Your task to perform on an android device: change the clock display to show seconds Image 0: 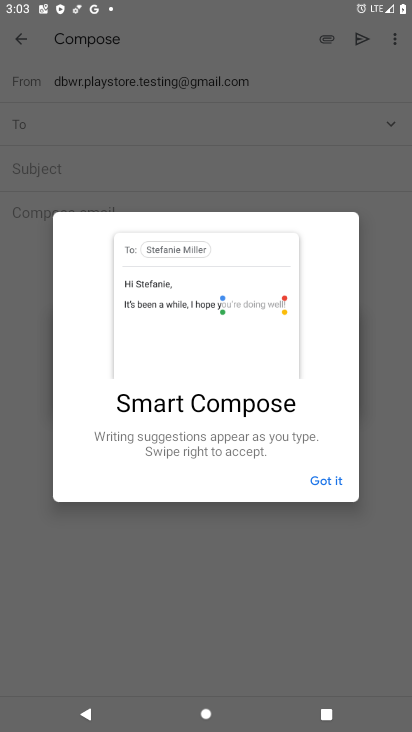
Step 0: press home button
Your task to perform on an android device: change the clock display to show seconds Image 1: 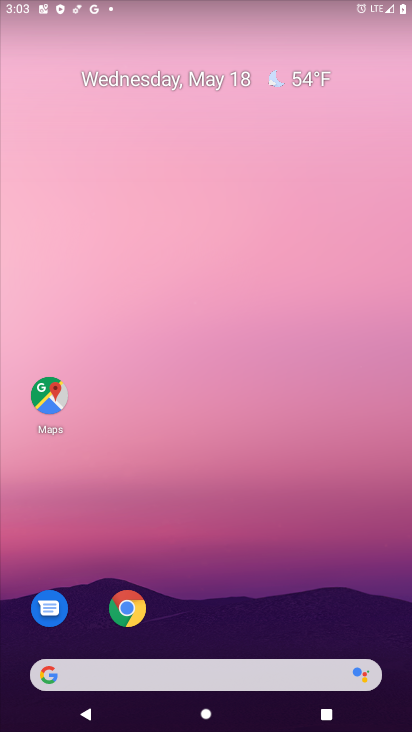
Step 1: drag from (247, 629) to (251, 27)
Your task to perform on an android device: change the clock display to show seconds Image 2: 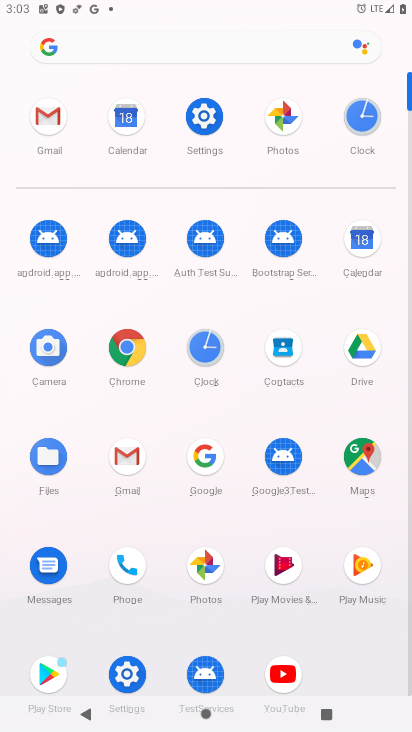
Step 2: click (367, 116)
Your task to perform on an android device: change the clock display to show seconds Image 3: 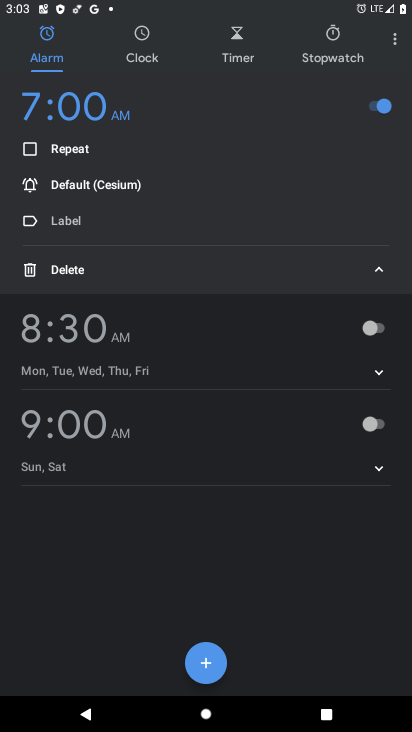
Step 3: click (400, 45)
Your task to perform on an android device: change the clock display to show seconds Image 4: 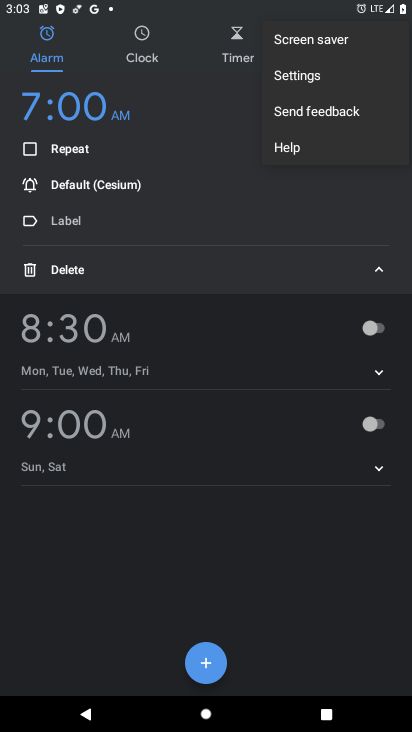
Step 4: click (326, 82)
Your task to perform on an android device: change the clock display to show seconds Image 5: 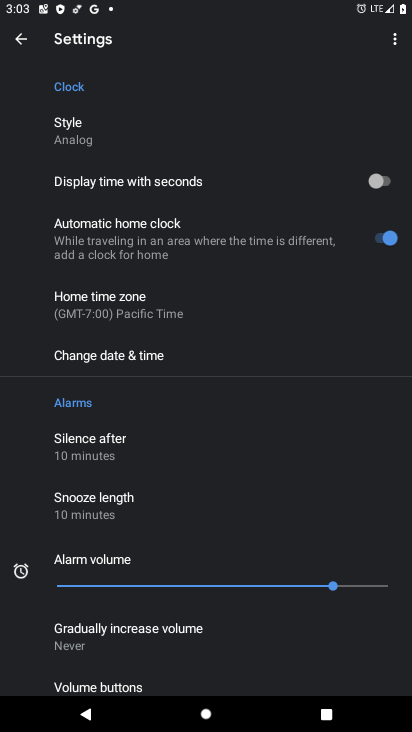
Step 5: click (373, 179)
Your task to perform on an android device: change the clock display to show seconds Image 6: 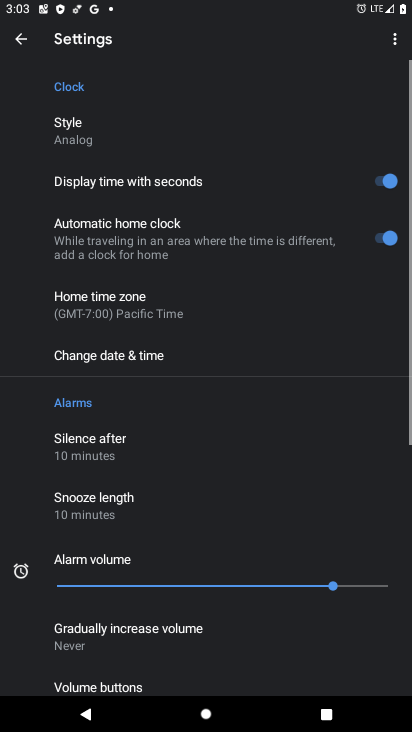
Step 6: task complete